Your task to perform on an android device: Open notification settings Image 0: 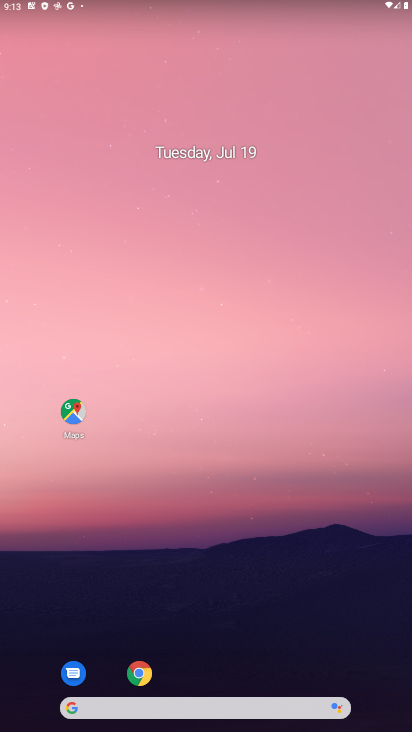
Step 0: drag from (269, 657) to (208, 122)
Your task to perform on an android device: Open notification settings Image 1: 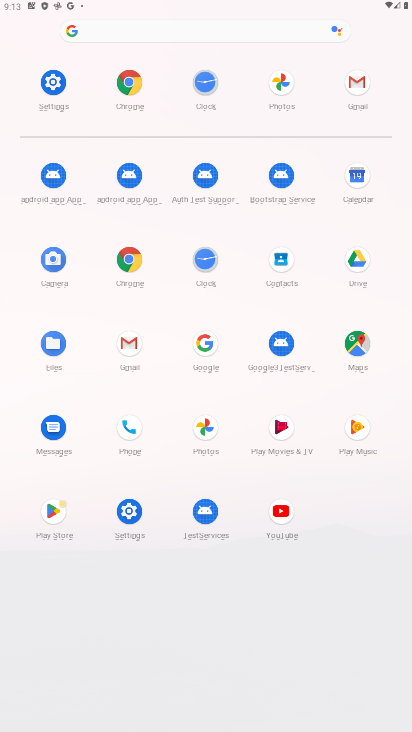
Step 1: click (64, 94)
Your task to perform on an android device: Open notification settings Image 2: 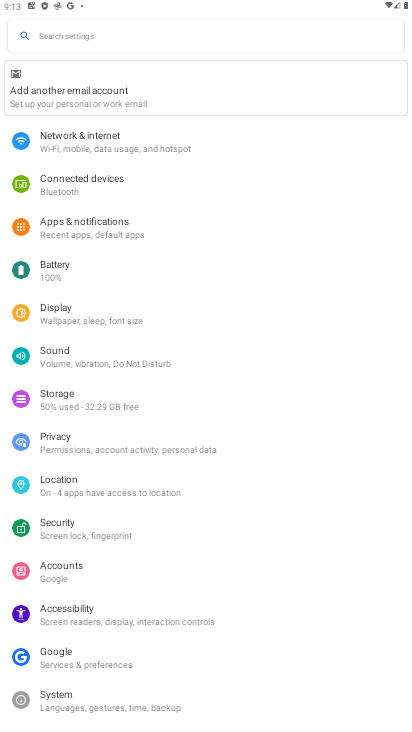
Step 2: click (116, 235)
Your task to perform on an android device: Open notification settings Image 3: 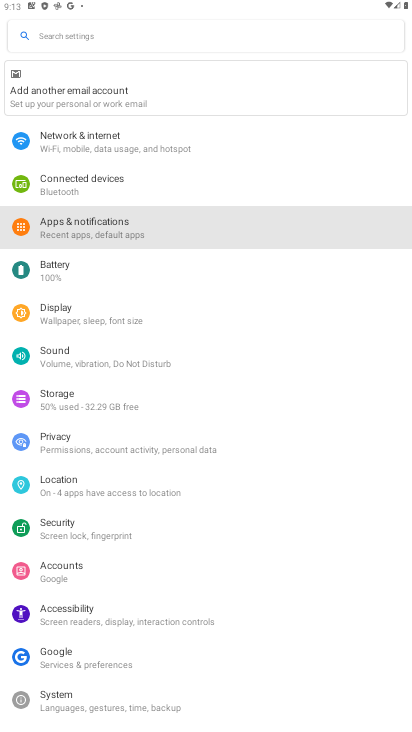
Step 3: task complete